Your task to perform on an android device: Open network settings Image 0: 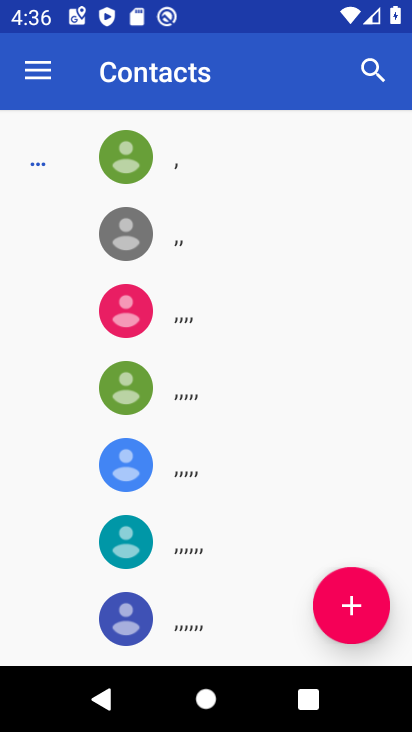
Step 0: press home button
Your task to perform on an android device: Open network settings Image 1: 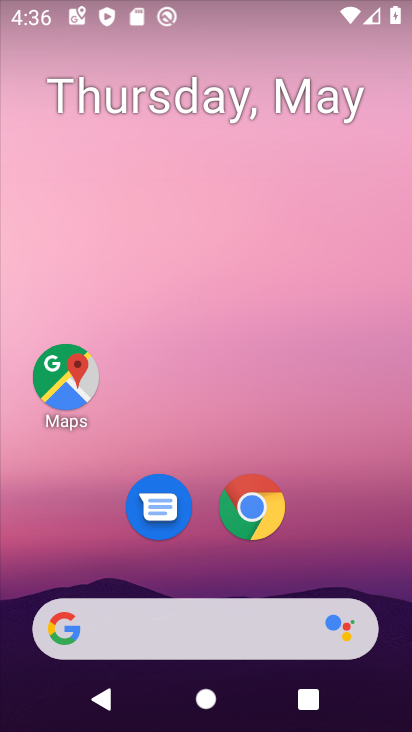
Step 1: drag from (298, 530) to (265, 50)
Your task to perform on an android device: Open network settings Image 2: 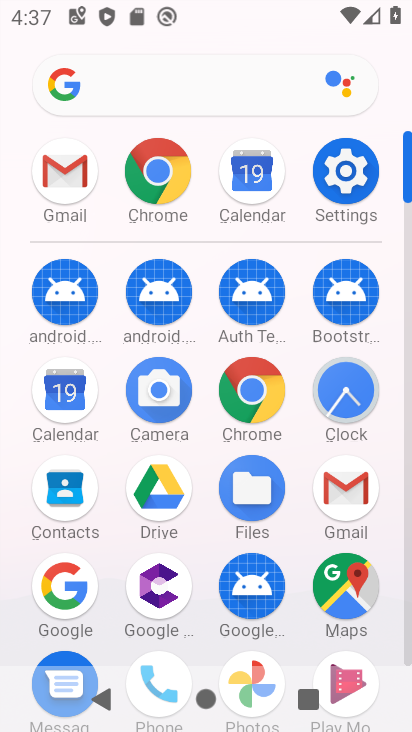
Step 2: click (342, 179)
Your task to perform on an android device: Open network settings Image 3: 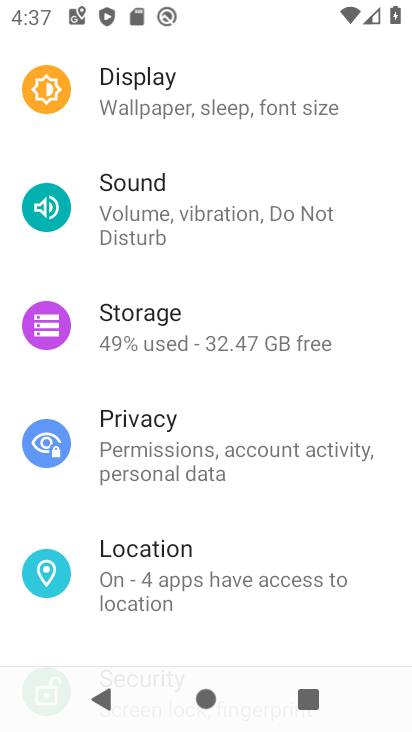
Step 3: drag from (213, 196) to (226, 622)
Your task to perform on an android device: Open network settings Image 4: 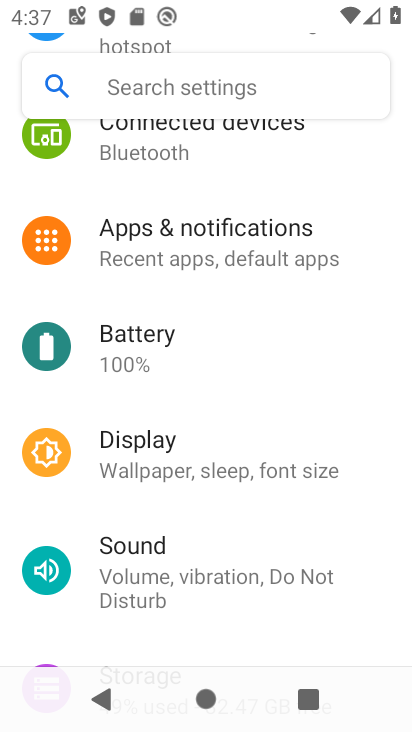
Step 4: drag from (206, 215) to (165, 673)
Your task to perform on an android device: Open network settings Image 5: 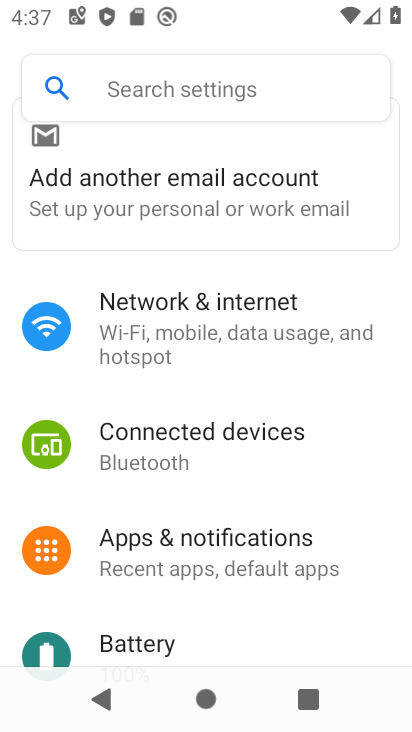
Step 5: click (153, 320)
Your task to perform on an android device: Open network settings Image 6: 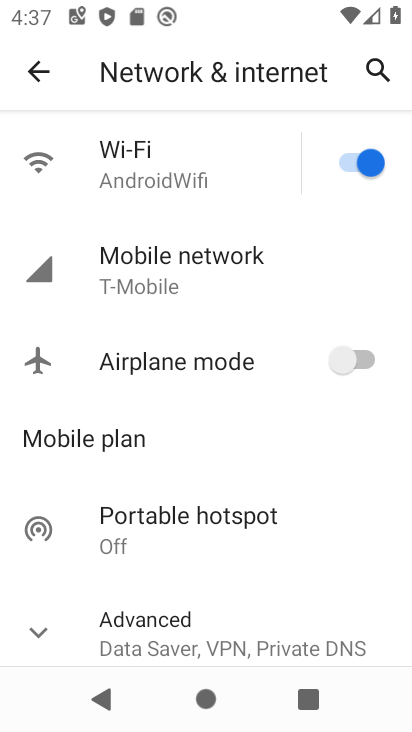
Step 6: click (112, 267)
Your task to perform on an android device: Open network settings Image 7: 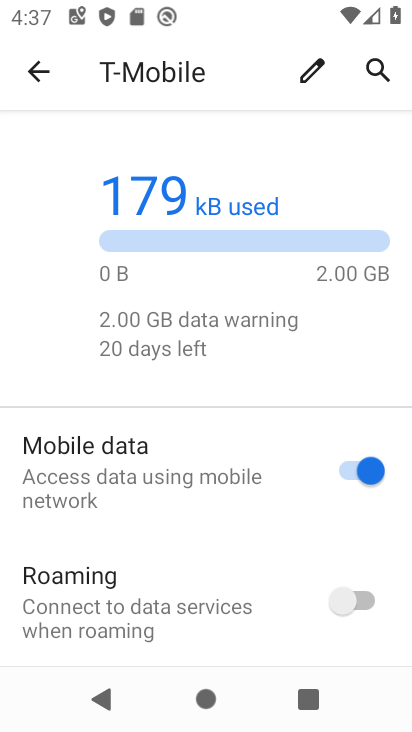
Step 7: task complete